Your task to perform on an android device: Go to Google maps Image 0: 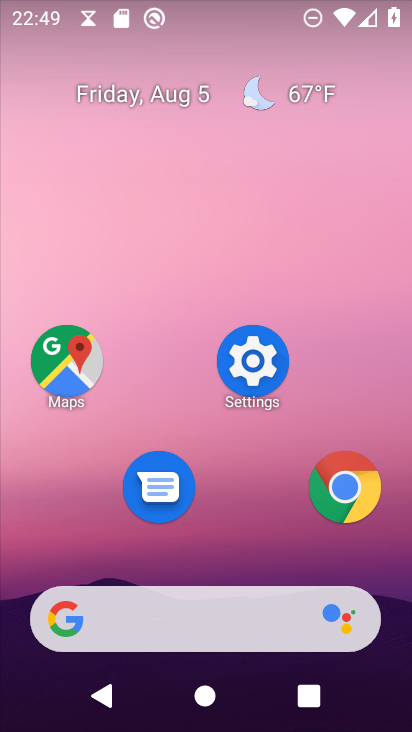
Step 0: press home button
Your task to perform on an android device: Go to Google maps Image 1: 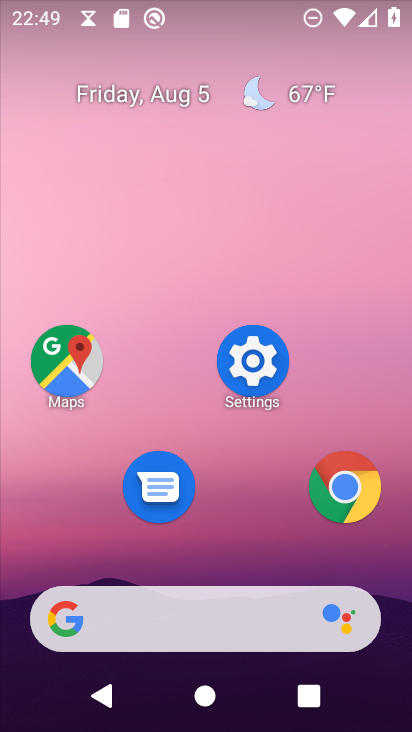
Step 1: click (55, 365)
Your task to perform on an android device: Go to Google maps Image 2: 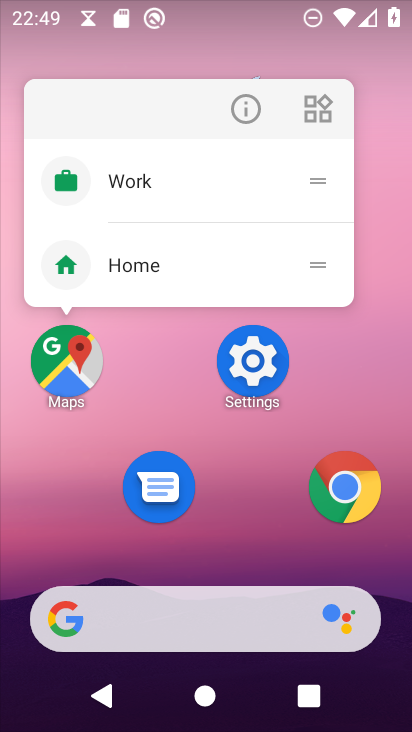
Step 2: click (59, 370)
Your task to perform on an android device: Go to Google maps Image 3: 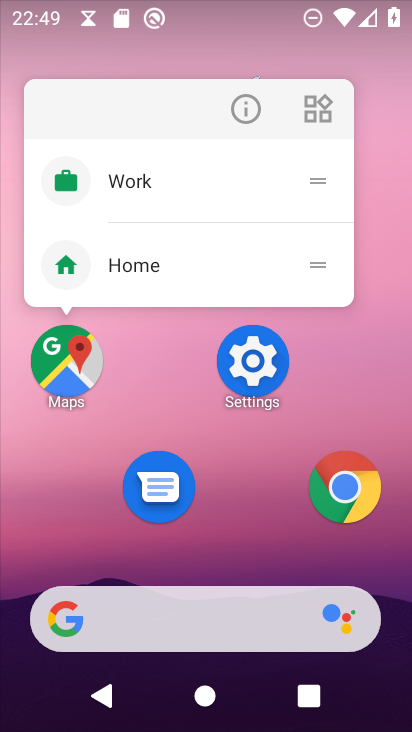
Step 3: click (61, 378)
Your task to perform on an android device: Go to Google maps Image 4: 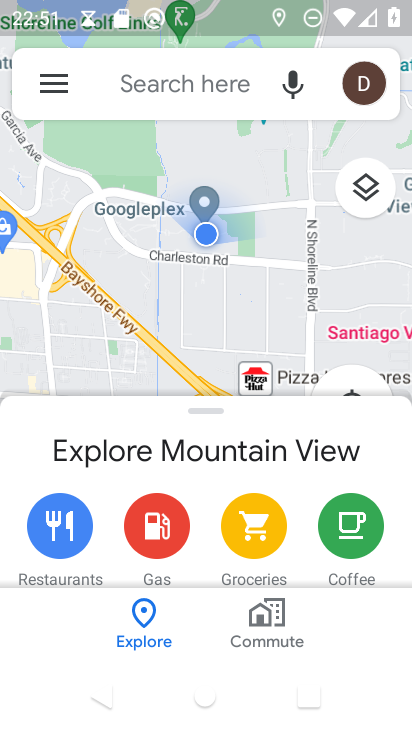
Step 4: task complete